Your task to perform on an android device: add a contact Image 0: 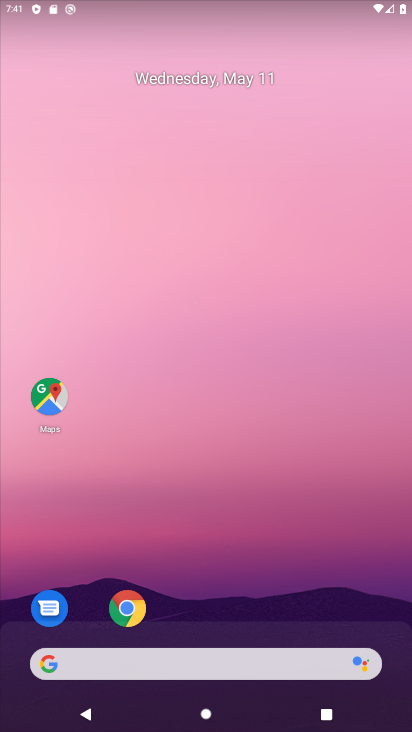
Step 0: drag from (278, 601) to (201, 23)
Your task to perform on an android device: add a contact Image 1: 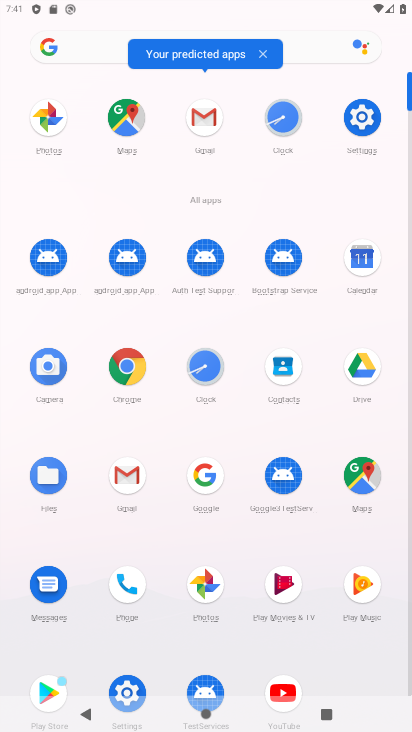
Step 1: click (283, 364)
Your task to perform on an android device: add a contact Image 2: 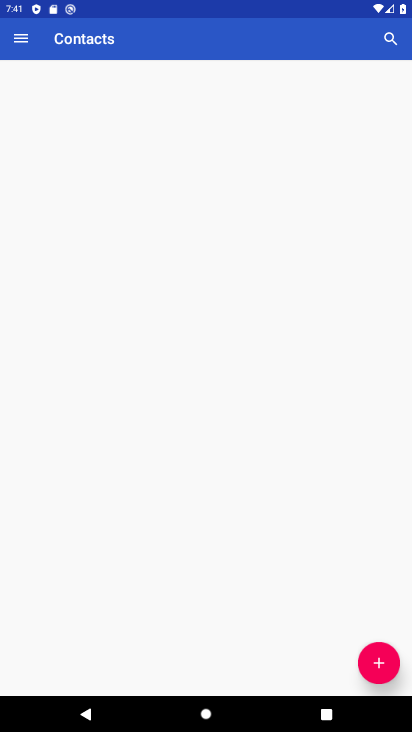
Step 2: click (379, 660)
Your task to perform on an android device: add a contact Image 3: 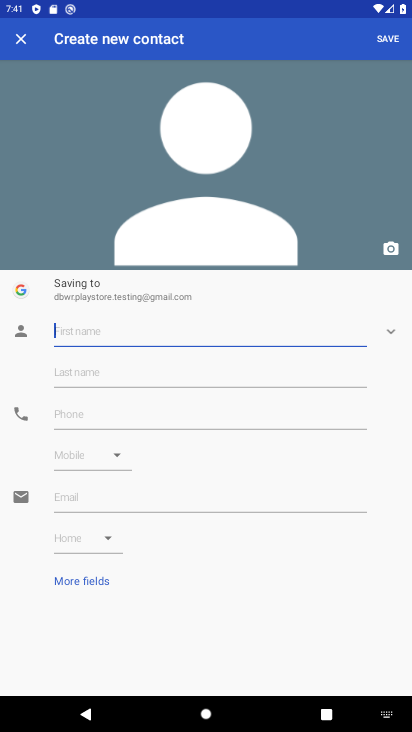
Step 3: type "fgsdf"
Your task to perform on an android device: add a contact Image 4: 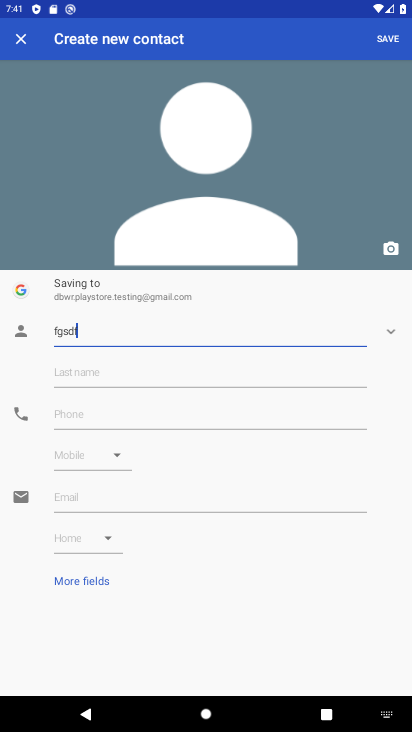
Step 4: type ""
Your task to perform on an android device: add a contact Image 5: 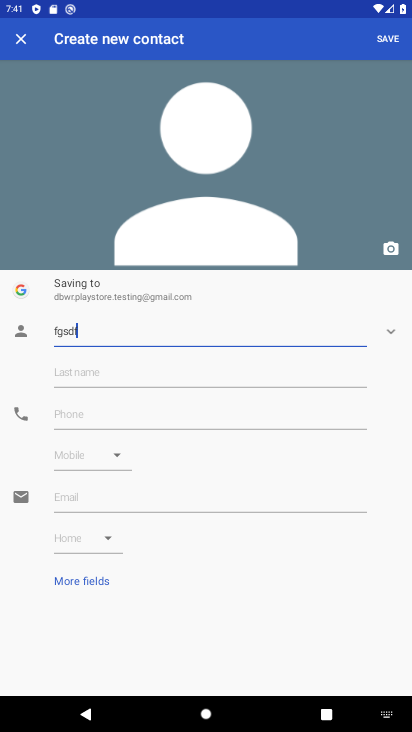
Step 5: click (233, 374)
Your task to perform on an android device: add a contact Image 6: 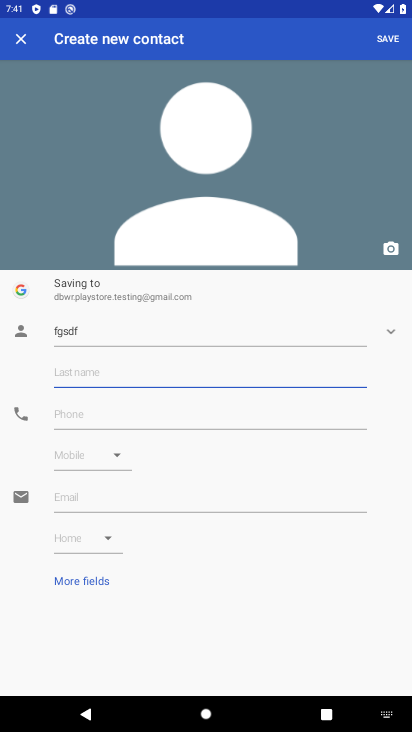
Step 6: type "egdg"
Your task to perform on an android device: add a contact Image 7: 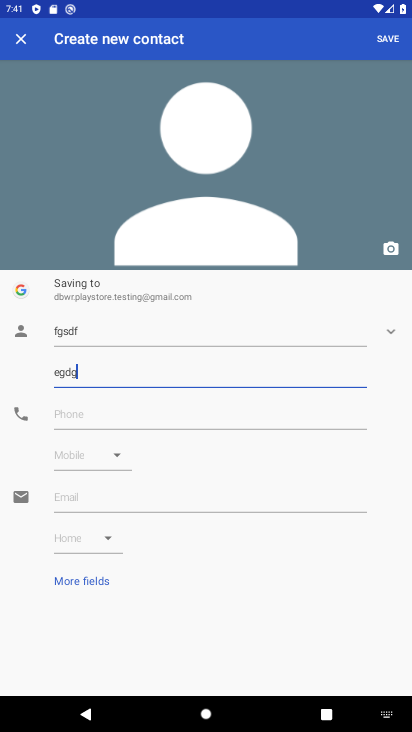
Step 7: type ""
Your task to perform on an android device: add a contact Image 8: 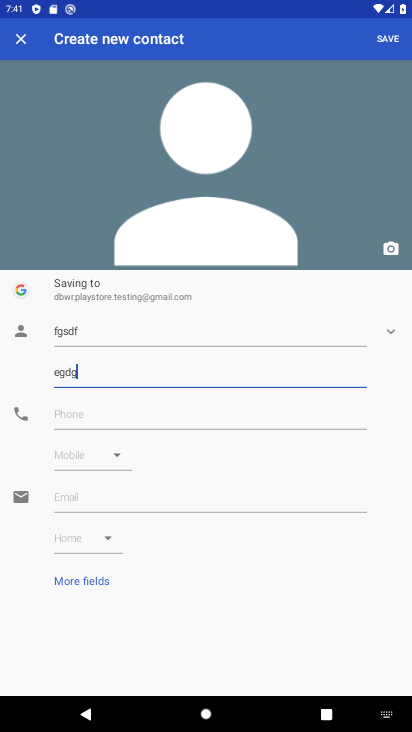
Step 8: click (199, 422)
Your task to perform on an android device: add a contact Image 9: 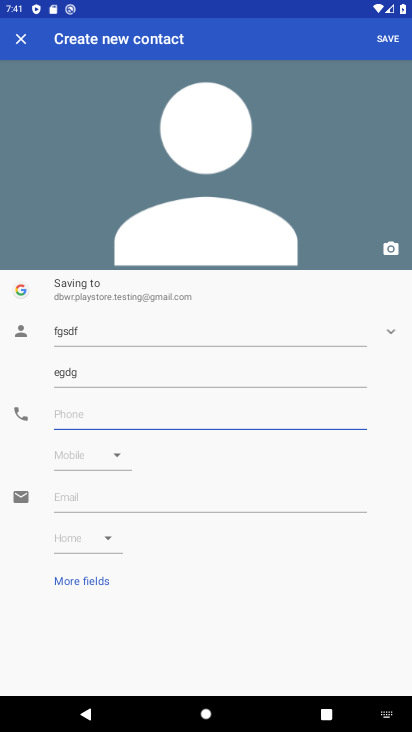
Step 9: type "345354235263"
Your task to perform on an android device: add a contact Image 10: 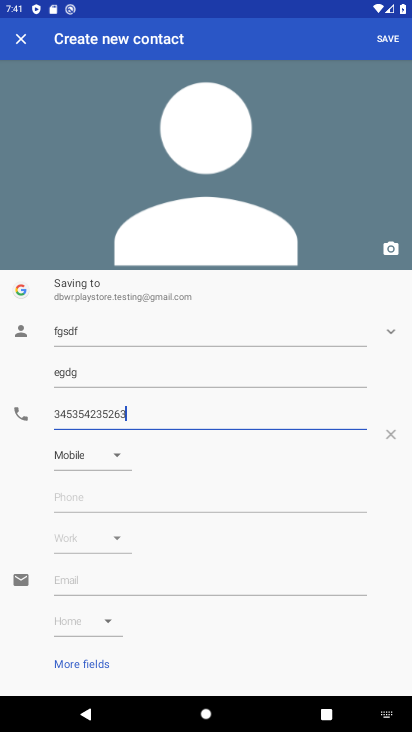
Step 10: type ""
Your task to perform on an android device: add a contact Image 11: 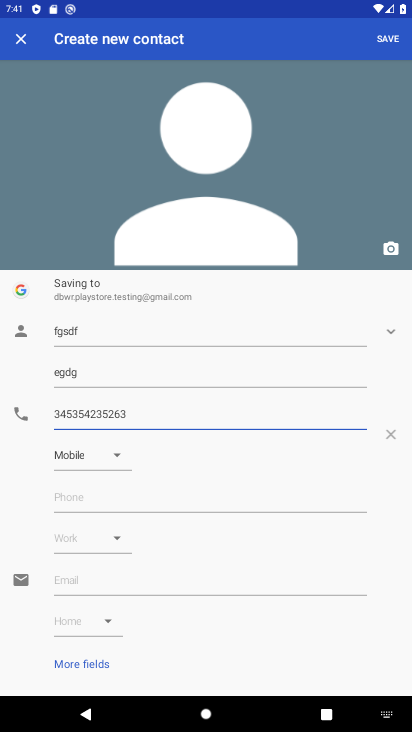
Step 11: click (393, 37)
Your task to perform on an android device: add a contact Image 12: 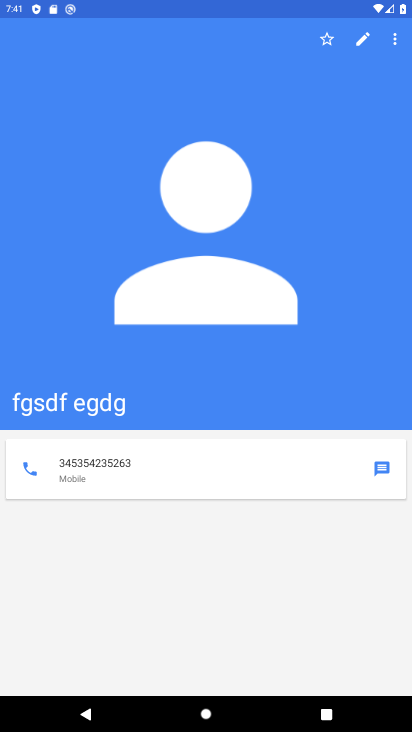
Step 12: task complete